Your task to perform on an android device: Google the capital of Ecuador Image 0: 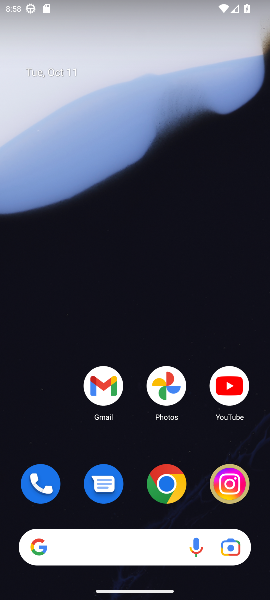
Step 0: click (163, 484)
Your task to perform on an android device: Google the capital of Ecuador Image 1: 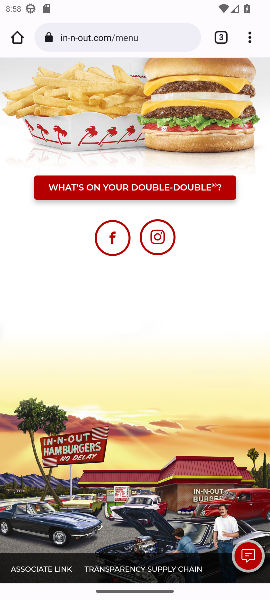
Step 1: click (162, 35)
Your task to perform on an android device: Google the capital of Ecuador Image 2: 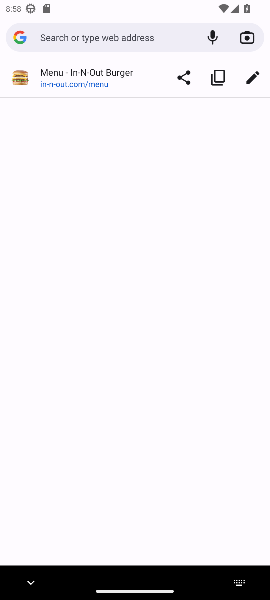
Step 2: type "capital of Ecuador"
Your task to perform on an android device: Google the capital of Ecuador Image 3: 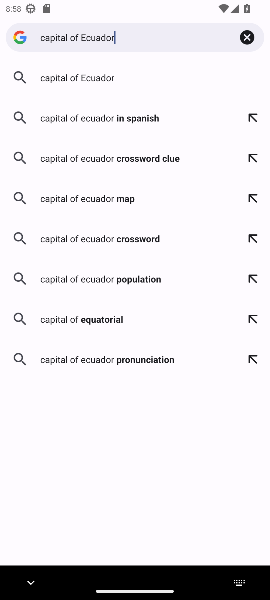
Step 3: click (99, 78)
Your task to perform on an android device: Google the capital of Ecuador Image 4: 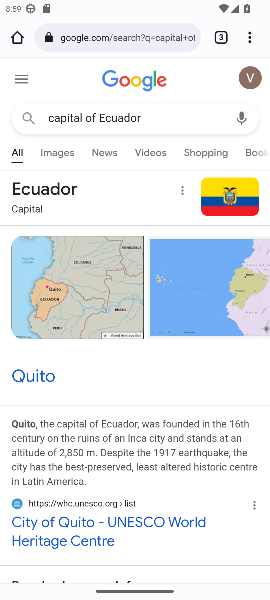
Step 4: task complete